Your task to perform on an android device: What's the weather going to be tomorrow? Image 0: 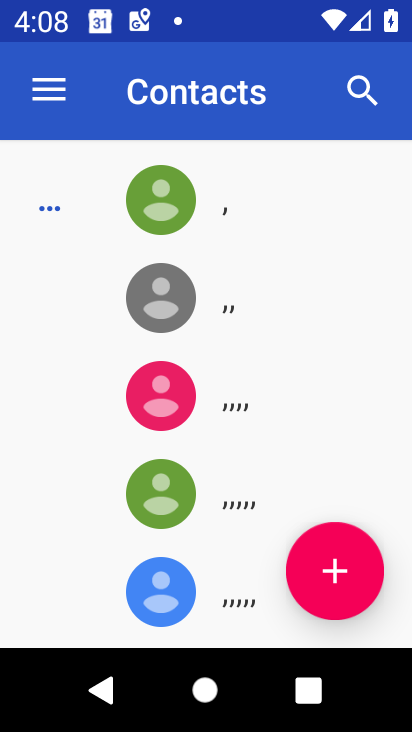
Step 0: press home button
Your task to perform on an android device: What's the weather going to be tomorrow? Image 1: 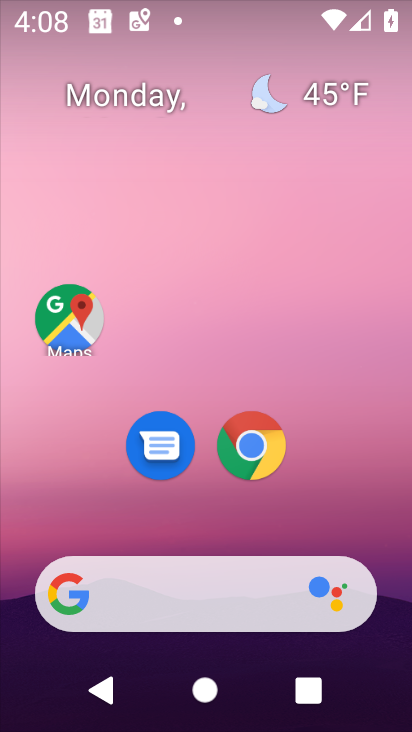
Step 1: click (222, 588)
Your task to perform on an android device: What's the weather going to be tomorrow? Image 2: 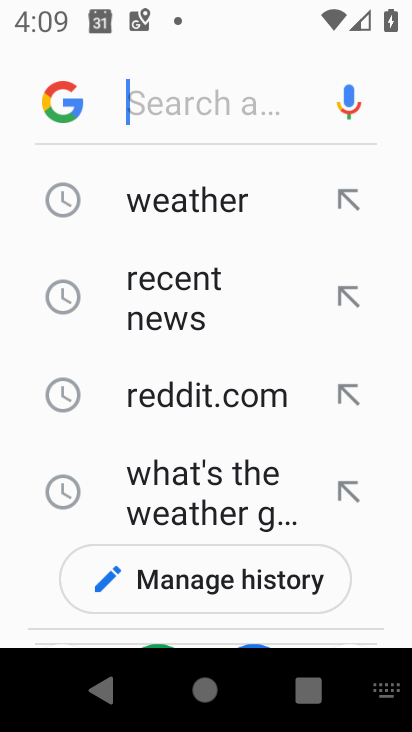
Step 2: type "what's the weather going to be tomorrow"
Your task to perform on an android device: What's the weather going to be tomorrow? Image 3: 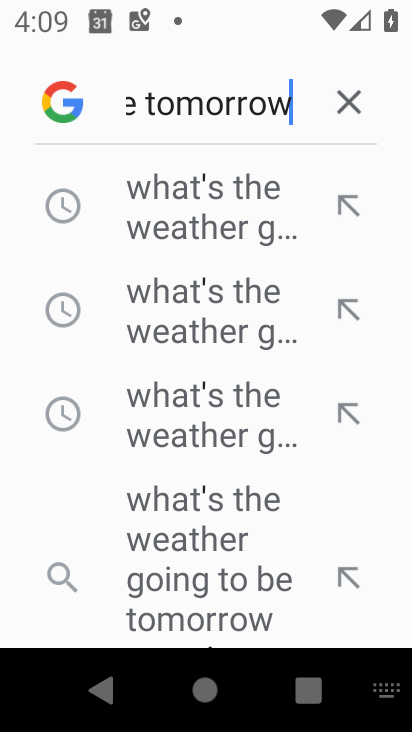
Step 3: click (188, 206)
Your task to perform on an android device: What's the weather going to be tomorrow? Image 4: 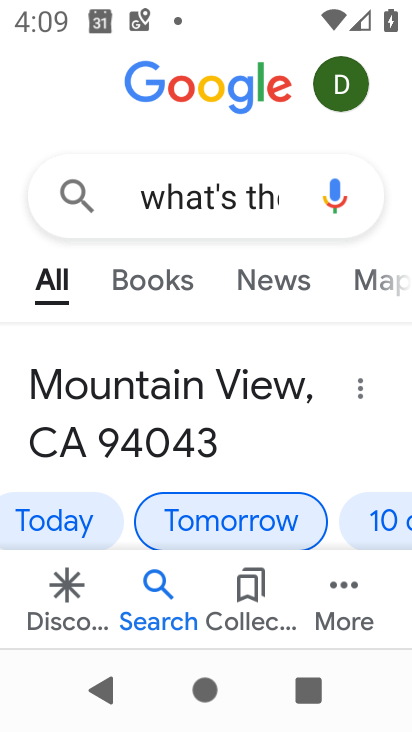
Step 4: task complete